Your task to perform on an android device: turn pop-ups off in chrome Image 0: 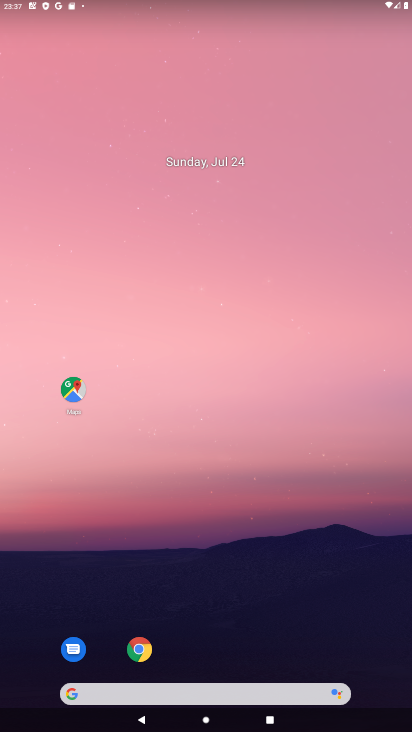
Step 0: click (140, 647)
Your task to perform on an android device: turn pop-ups off in chrome Image 1: 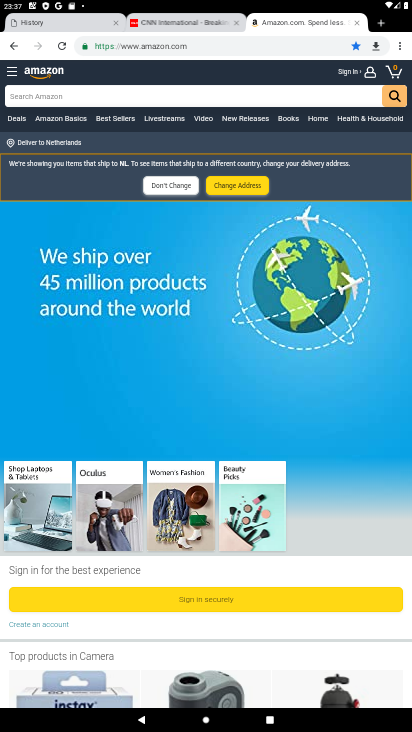
Step 1: click (400, 45)
Your task to perform on an android device: turn pop-ups off in chrome Image 2: 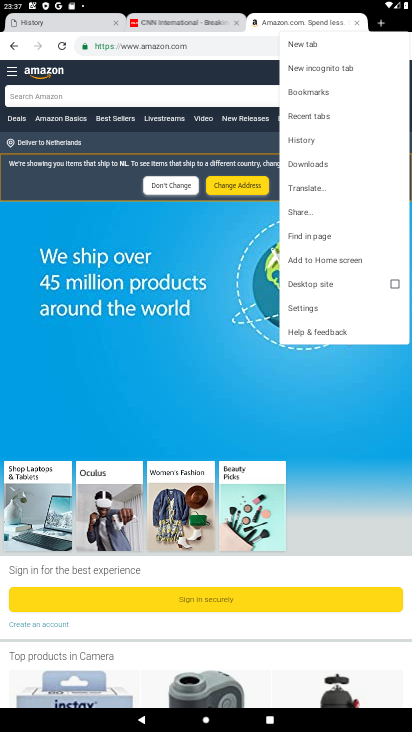
Step 2: click (318, 306)
Your task to perform on an android device: turn pop-ups off in chrome Image 3: 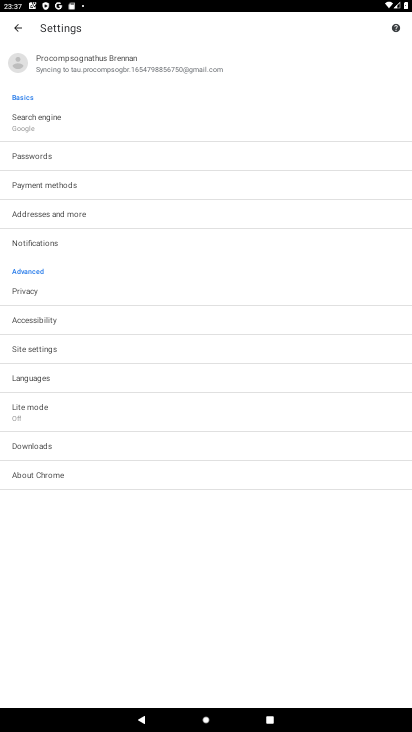
Step 3: click (69, 346)
Your task to perform on an android device: turn pop-ups off in chrome Image 4: 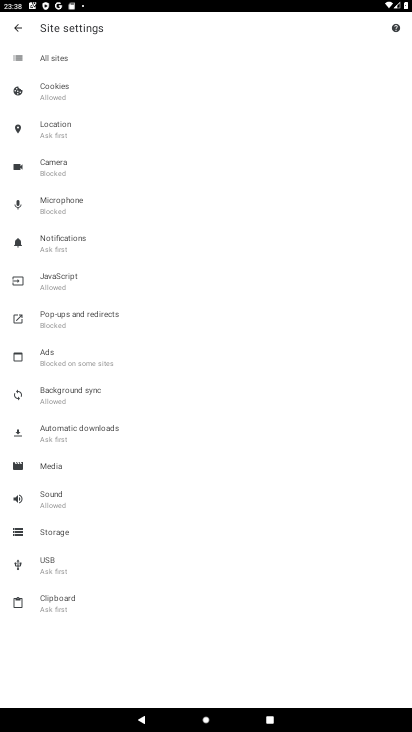
Step 4: click (100, 316)
Your task to perform on an android device: turn pop-ups off in chrome Image 5: 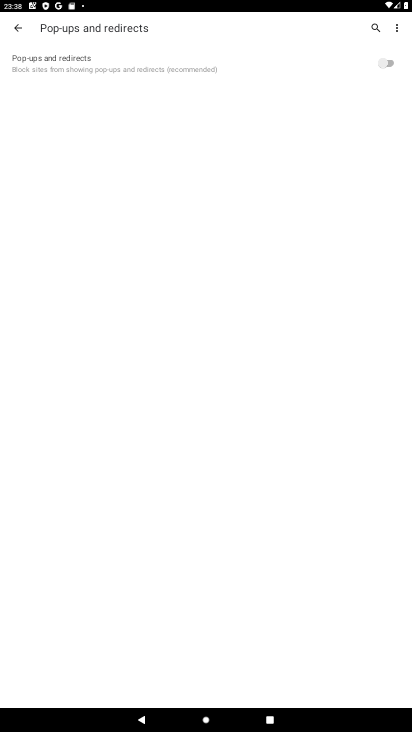
Step 5: task complete